Your task to perform on an android device: Open Android settings Image 0: 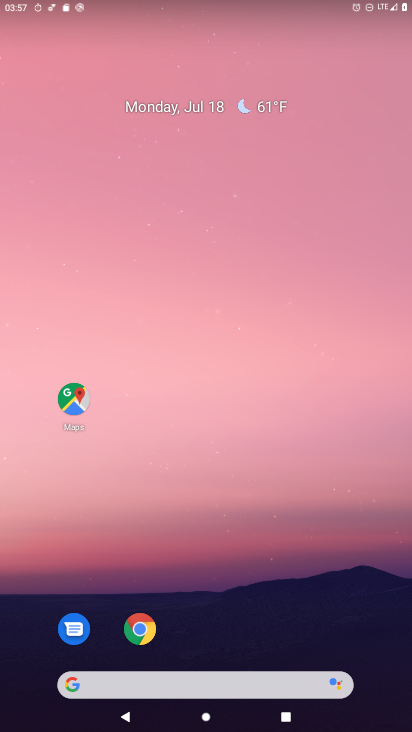
Step 0: drag from (213, 645) to (186, 176)
Your task to perform on an android device: Open Android settings Image 1: 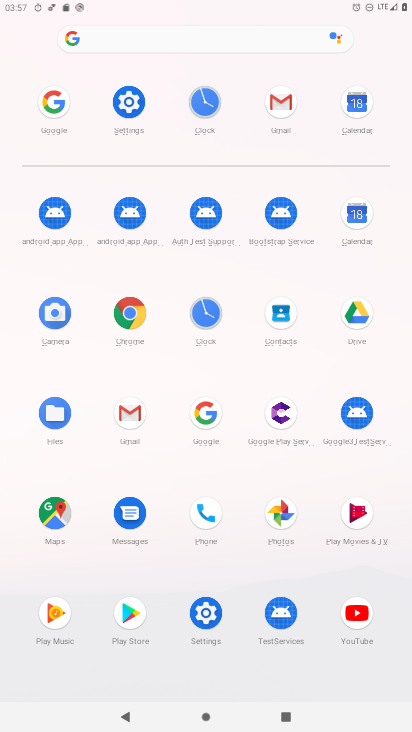
Step 1: click (127, 103)
Your task to perform on an android device: Open Android settings Image 2: 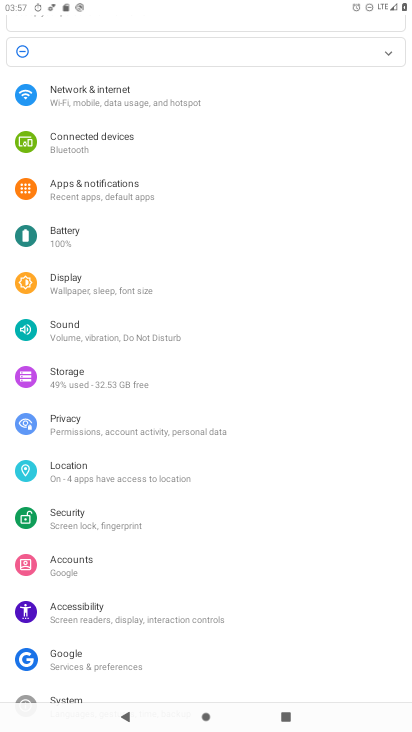
Step 2: task complete